Your task to perform on an android device: create a new album in the google photos Image 0: 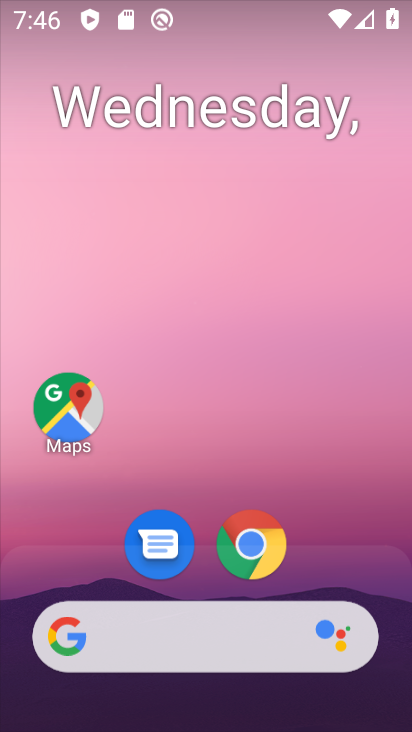
Step 0: drag from (238, 712) to (210, 103)
Your task to perform on an android device: create a new album in the google photos Image 1: 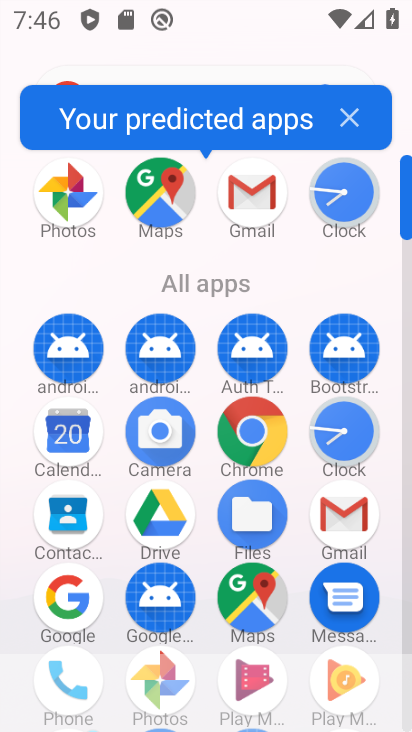
Step 1: drag from (206, 585) to (305, 286)
Your task to perform on an android device: create a new album in the google photos Image 2: 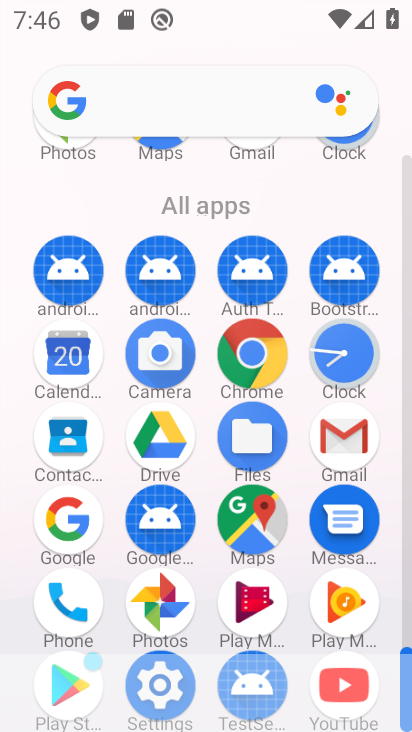
Step 2: click (169, 618)
Your task to perform on an android device: create a new album in the google photos Image 3: 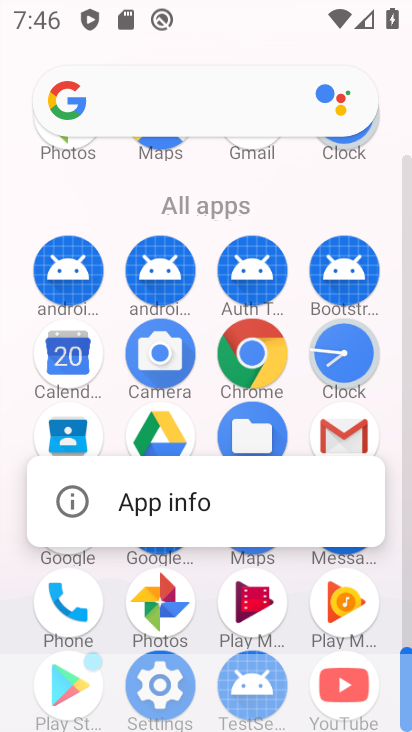
Step 3: click (164, 618)
Your task to perform on an android device: create a new album in the google photos Image 4: 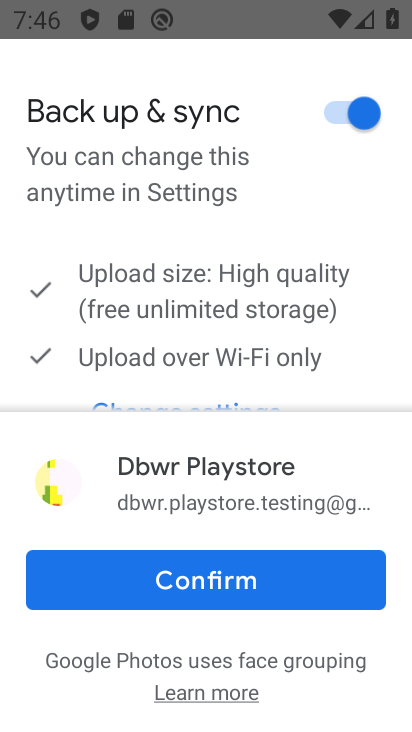
Step 4: click (209, 597)
Your task to perform on an android device: create a new album in the google photos Image 5: 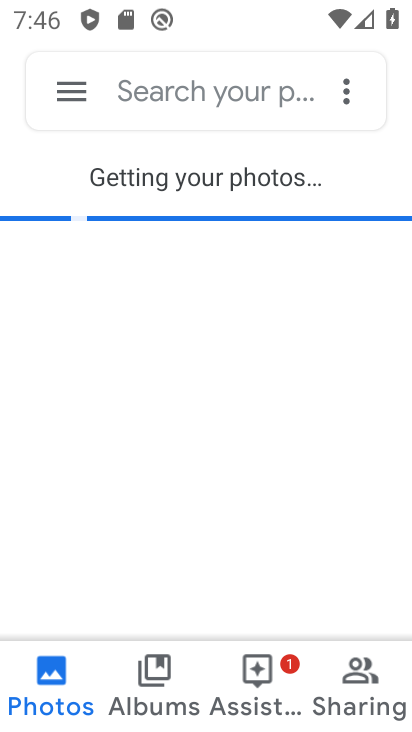
Step 5: click (158, 689)
Your task to perform on an android device: create a new album in the google photos Image 6: 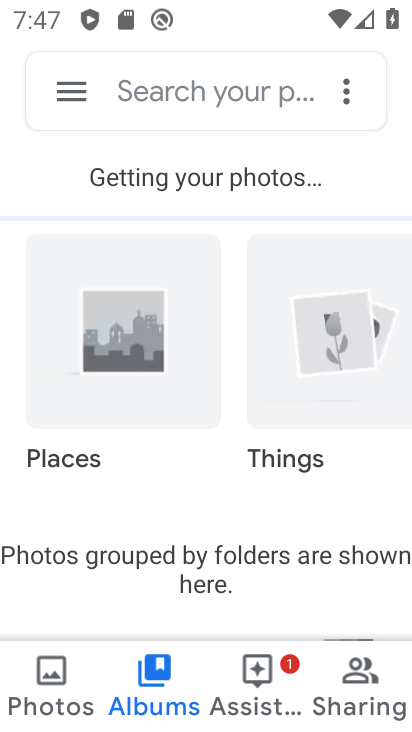
Step 6: click (57, 87)
Your task to perform on an android device: create a new album in the google photos Image 7: 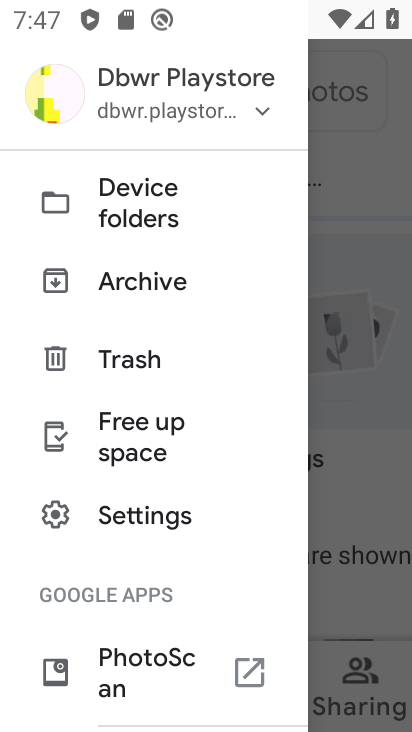
Step 7: drag from (136, 668) to (162, 348)
Your task to perform on an android device: create a new album in the google photos Image 8: 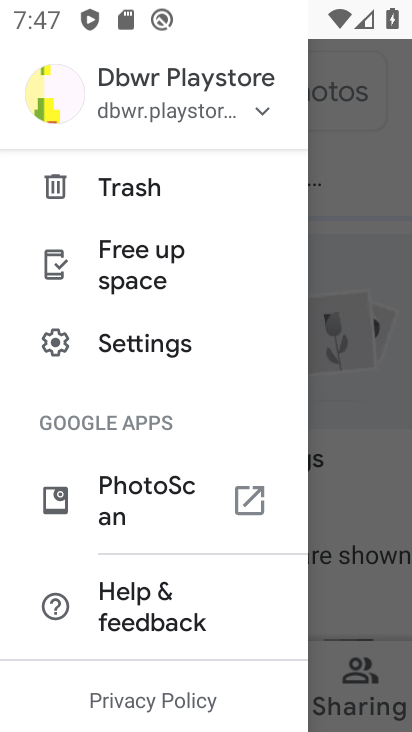
Step 8: click (352, 491)
Your task to perform on an android device: create a new album in the google photos Image 9: 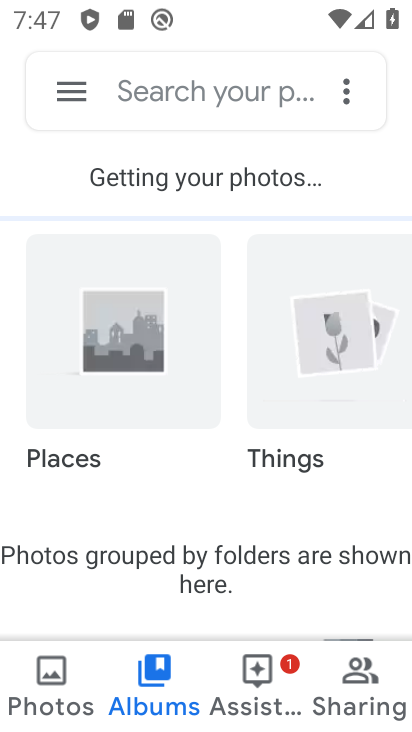
Step 9: drag from (306, 673) to (378, 251)
Your task to perform on an android device: create a new album in the google photos Image 10: 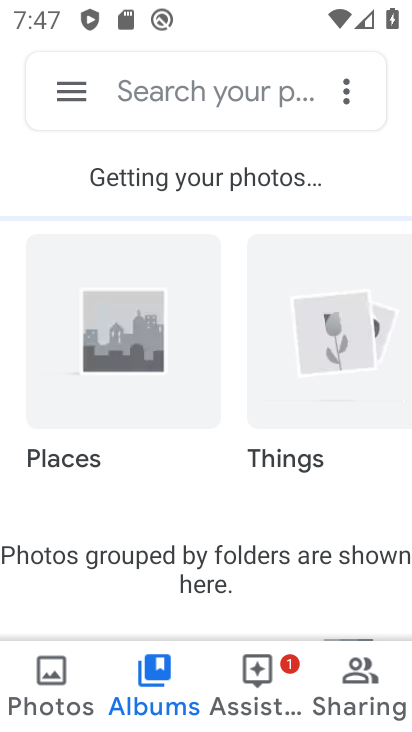
Step 10: click (340, 92)
Your task to perform on an android device: create a new album in the google photos Image 11: 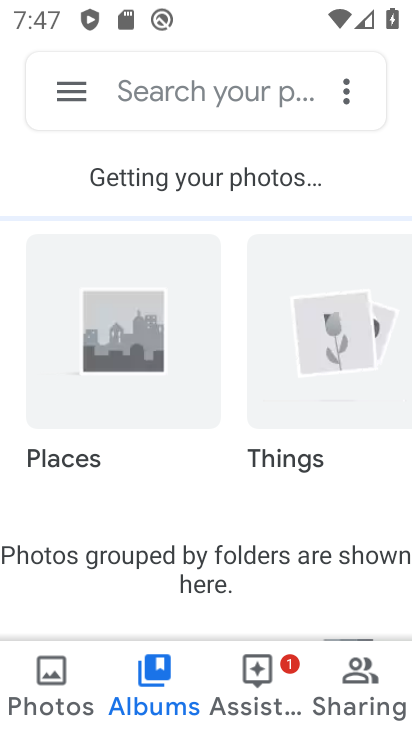
Step 11: click (332, 126)
Your task to perform on an android device: create a new album in the google photos Image 12: 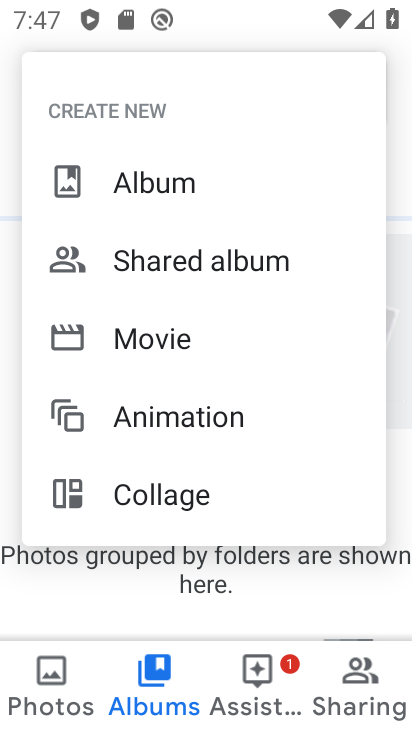
Step 12: click (162, 176)
Your task to perform on an android device: create a new album in the google photos Image 13: 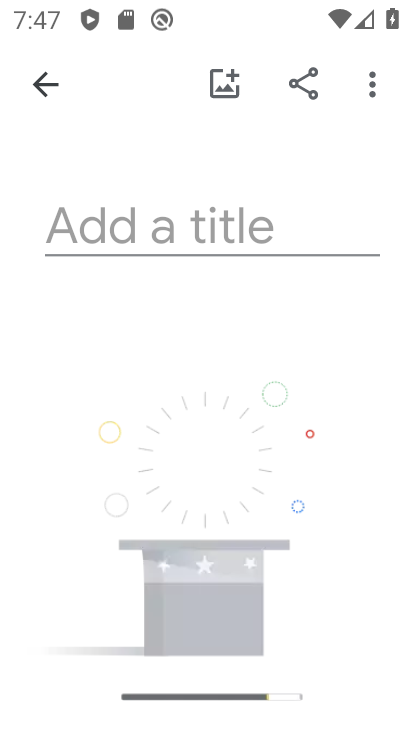
Step 13: click (223, 227)
Your task to perform on an android device: create a new album in the google photos Image 14: 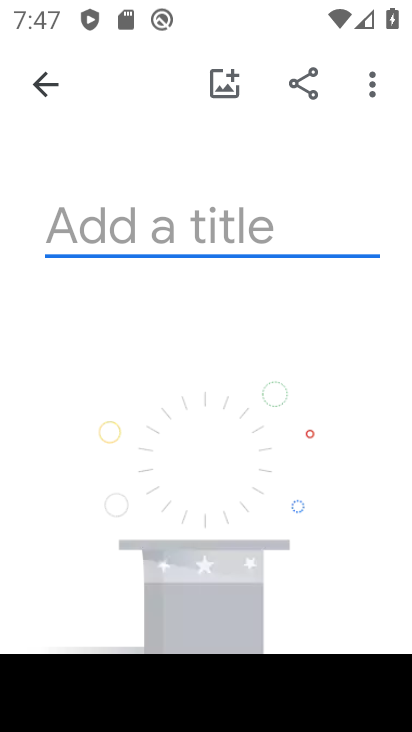
Step 14: type "created a new album "
Your task to perform on an android device: create a new album in the google photos Image 15: 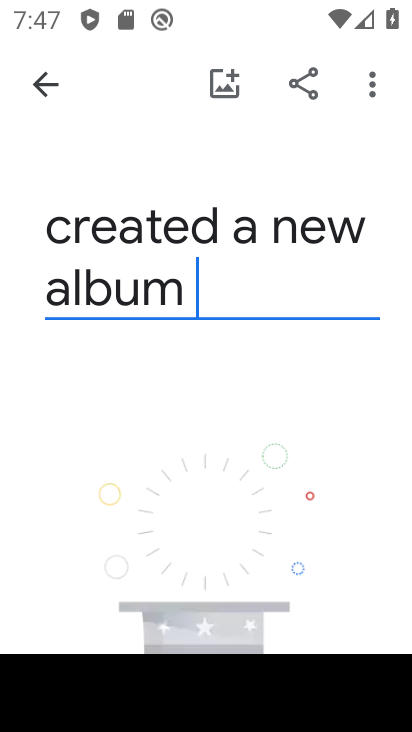
Step 15: task complete